Your task to perform on an android device: turn off airplane mode Image 0: 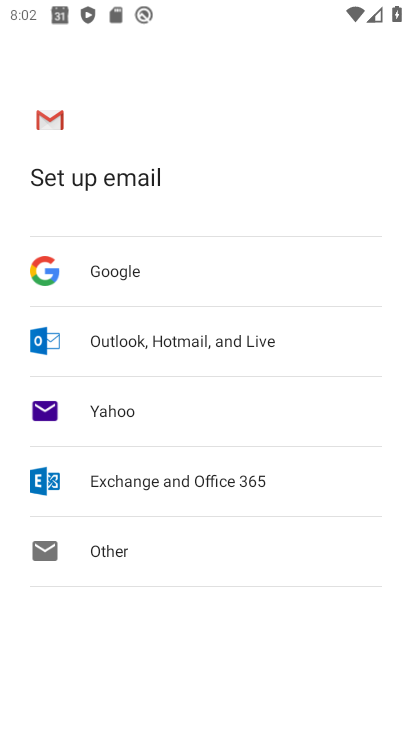
Step 0: press home button
Your task to perform on an android device: turn off airplane mode Image 1: 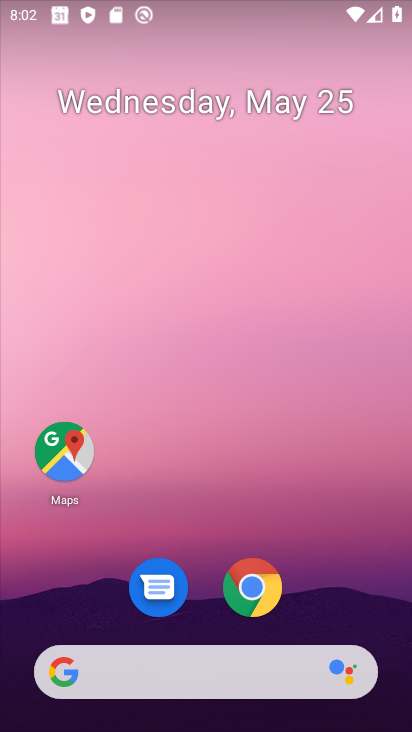
Step 1: task complete